Your task to perform on an android device: turn off translation in the chrome app Image 0: 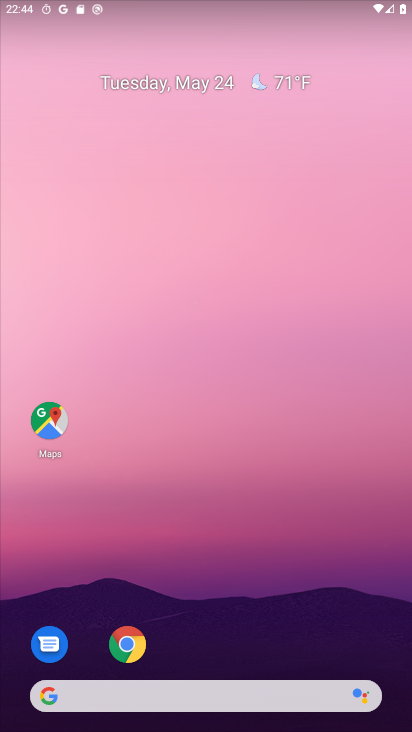
Step 0: click (133, 648)
Your task to perform on an android device: turn off translation in the chrome app Image 1: 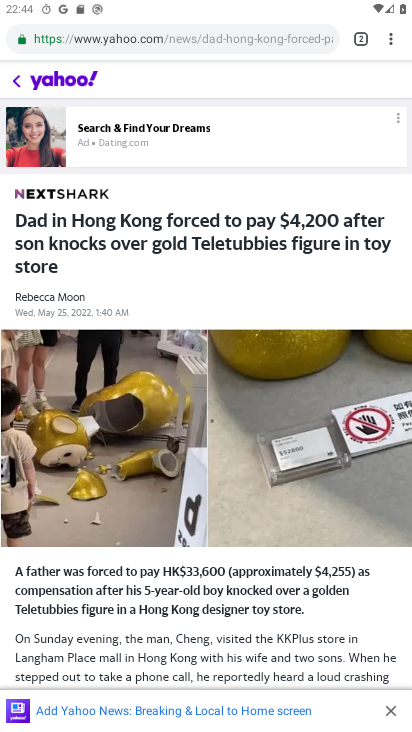
Step 1: click (395, 32)
Your task to perform on an android device: turn off translation in the chrome app Image 2: 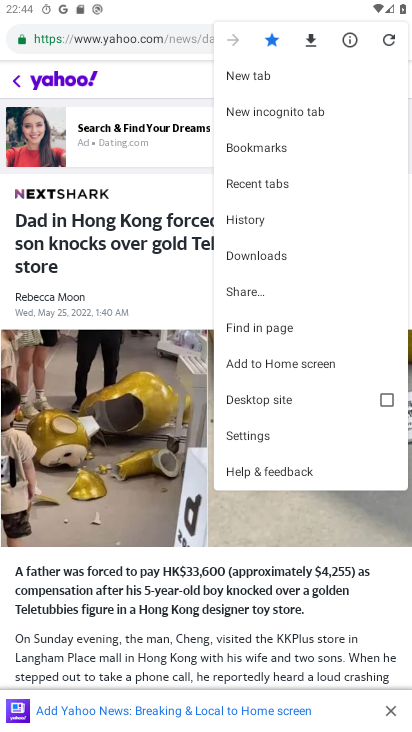
Step 2: click (258, 436)
Your task to perform on an android device: turn off translation in the chrome app Image 3: 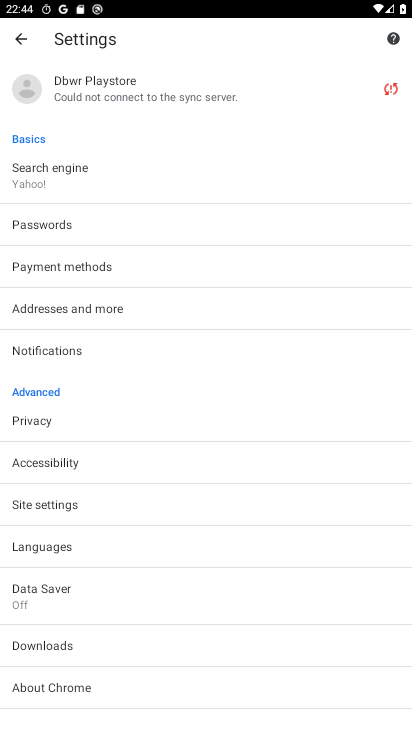
Step 3: click (53, 542)
Your task to perform on an android device: turn off translation in the chrome app Image 4: 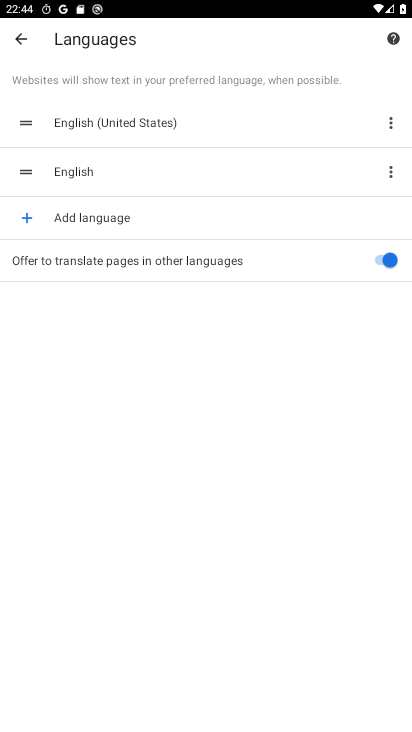
Step 4: click (385, 258)
Your task to perform on an android device: turn off translation in the chrome app Image 5: 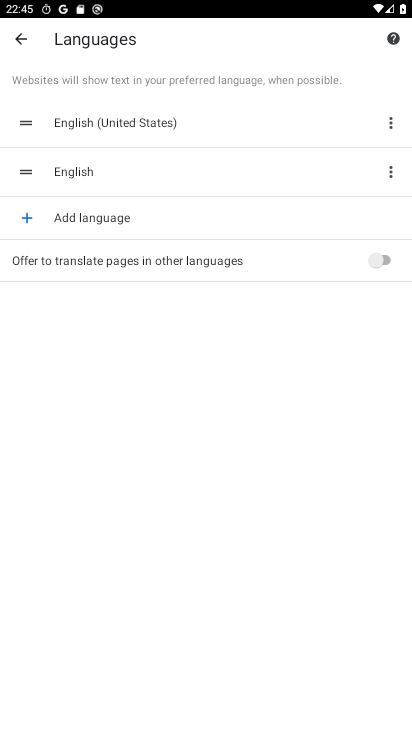
Step 5: task complete